Your task to perform on an android device: turn off data saver in the chrome app Image 0: 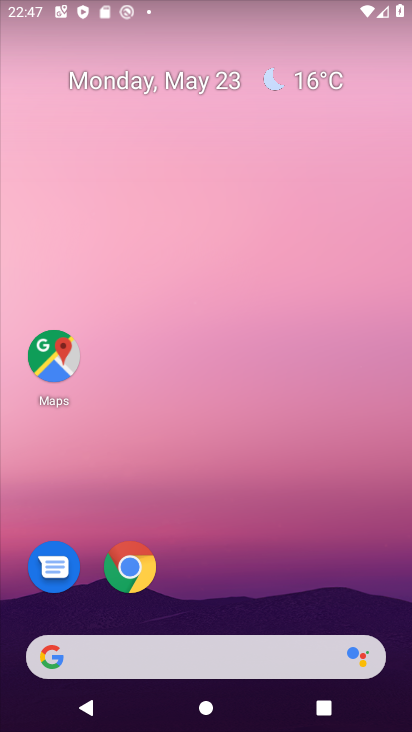
Step 0: click (290, 298)
Your task to perform on an android device: turn off data saver in the chrome app Image 1: 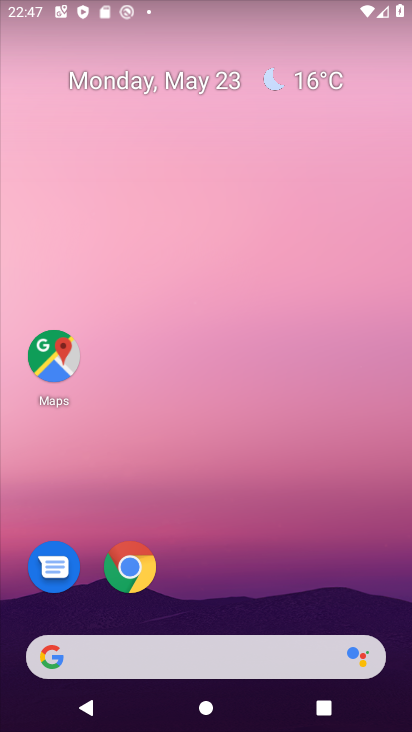
Step 1: drag from (228, 538) to (233, 22)
Your task to perform on an android device: turn off data saver in the chrome app Image 2: 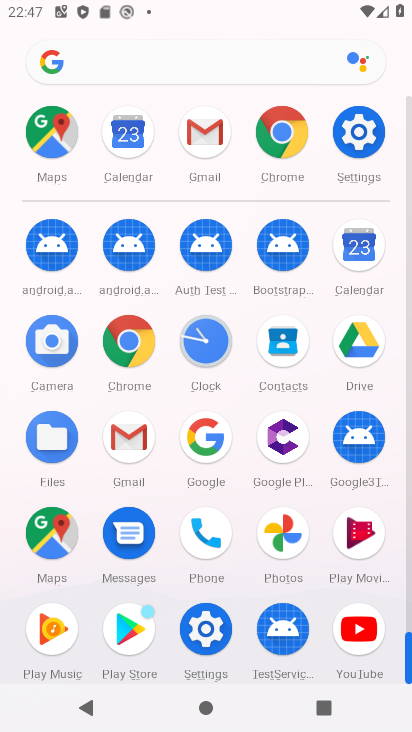
Step 2: click (132, 329)
Your task to perform on an android device: turn off data saver in the chrome app Image 3: 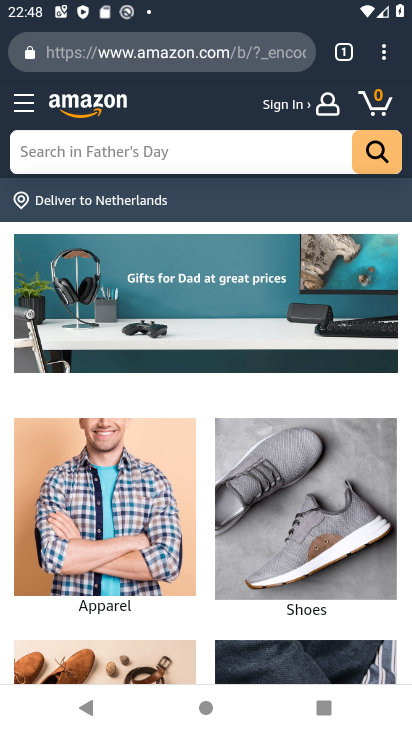
Step 3: click (382, 44)
Your task to perform on an android device: turn off data saver in the chrome app Image 4: 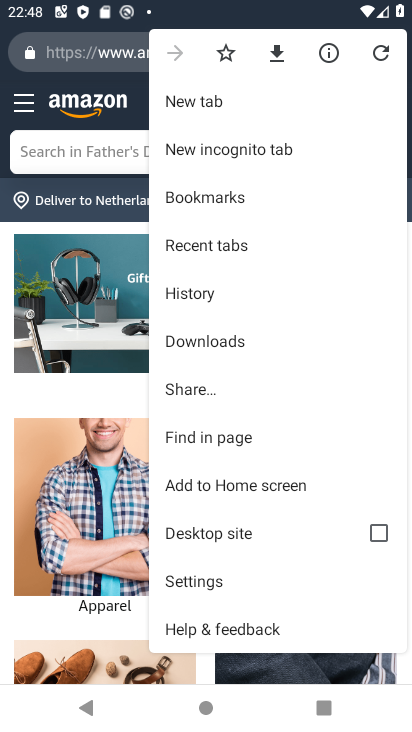
Step 4: click (218, 579)
Your task to perform on an android device: turn off data saver in the chrome app Image 5: 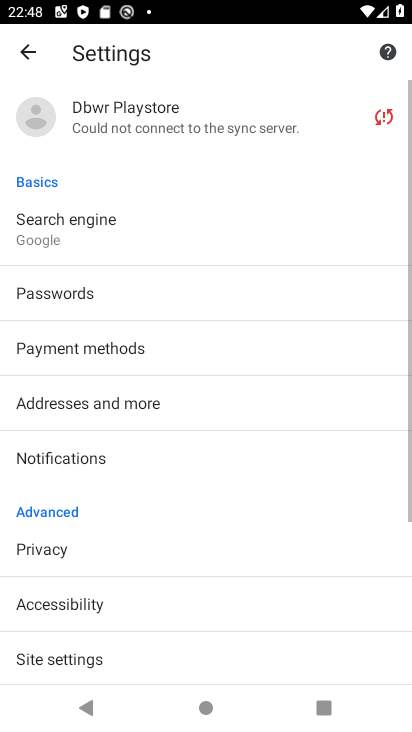
Step 5: drag from (222, 545) to (292, 65)
Your task to perform on an android device: turn off data saver in the chrome app Image 6: 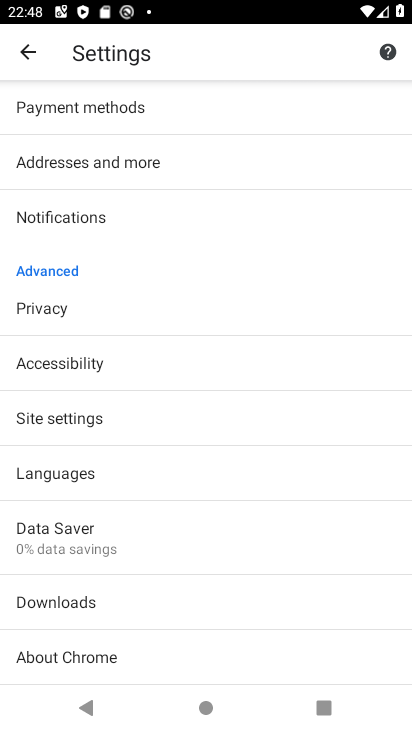
Step 6: click (101, 539)
Your task to perform on an android device: turn off data saver in the chrome app Image 7: 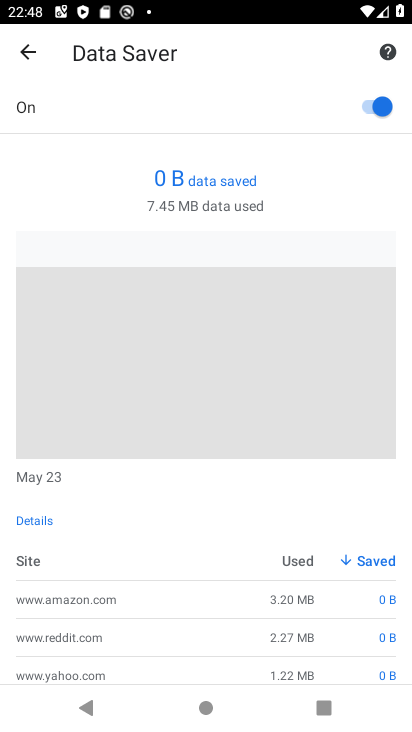
Step 7: click (369, 107)
Your task to perform on an android device: turn off data saver in the chrome app Image 8: 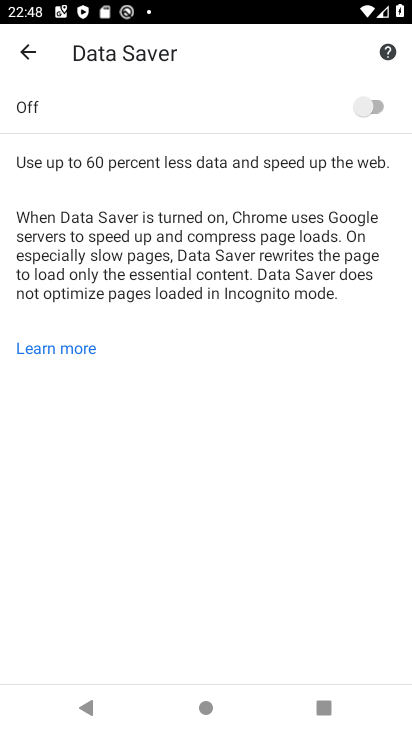
Step 8: task complete